Your task to perform on an android device: Show me popular videos on Youtube Image 0: 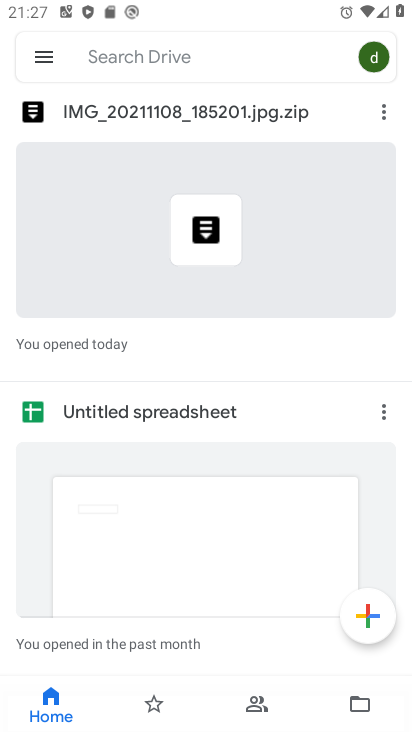
Step 0: press home button
Your task to perform on an android device: Show me popular videos on Youtube Image 1: 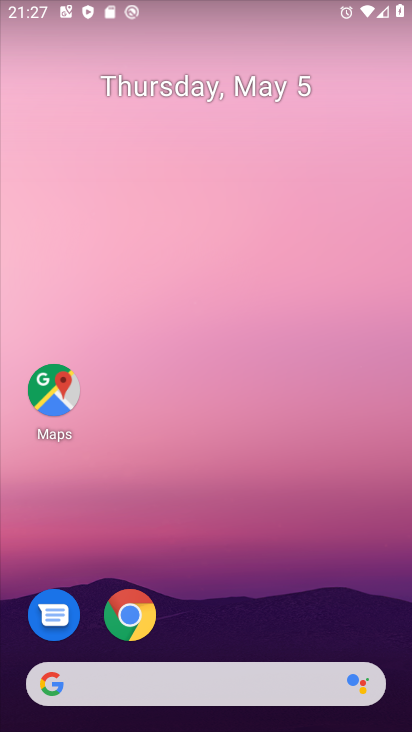
Step 1: drag from (238, 629) to (277, 43)
Your task to perform on an android device: Show me popular videos on Youtube Image 2: 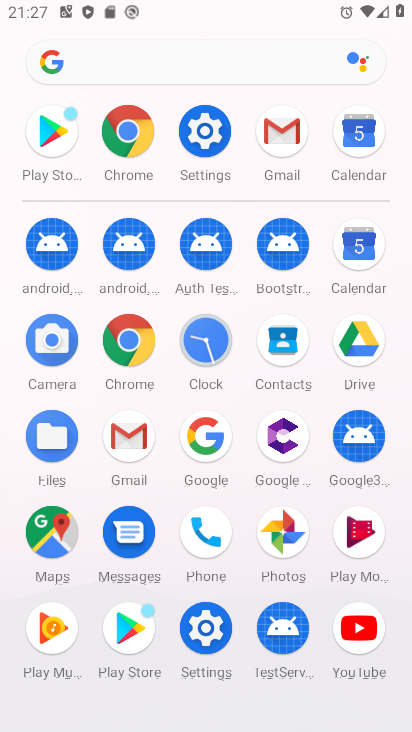
Step 2: click (346, 631)
Your task to perform on an android device: Show me popular videos on Youtube Image 3: 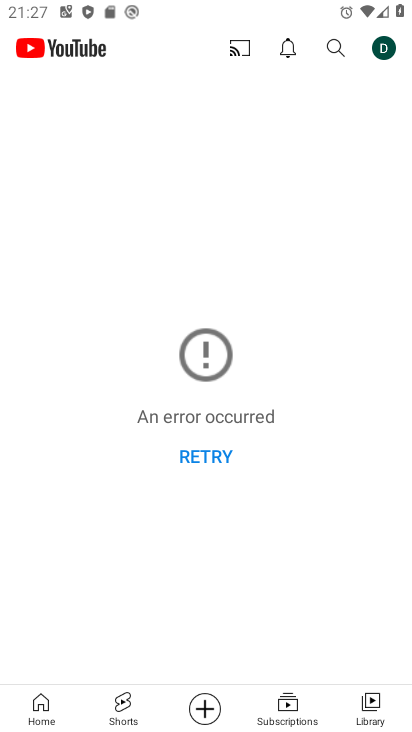
Step 3: click (201, 451)
Your task to perform on an android device: Show me popular videos on Youtube Image 4: 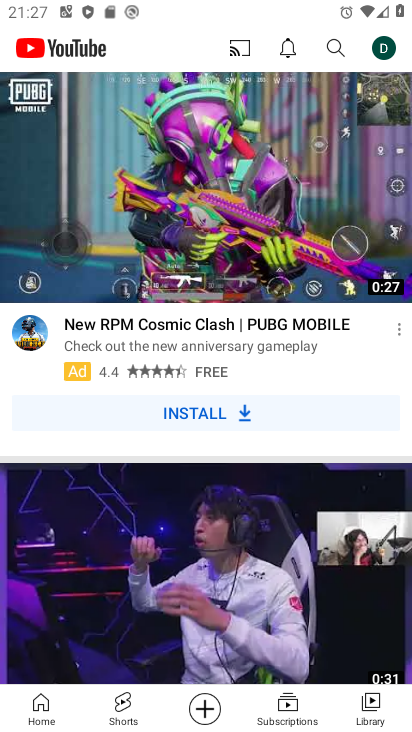
Step 4: drag from (136, 165) to (141, 504)
Your task to perform on an android device: Show me popular videos on Youtube Image 5: 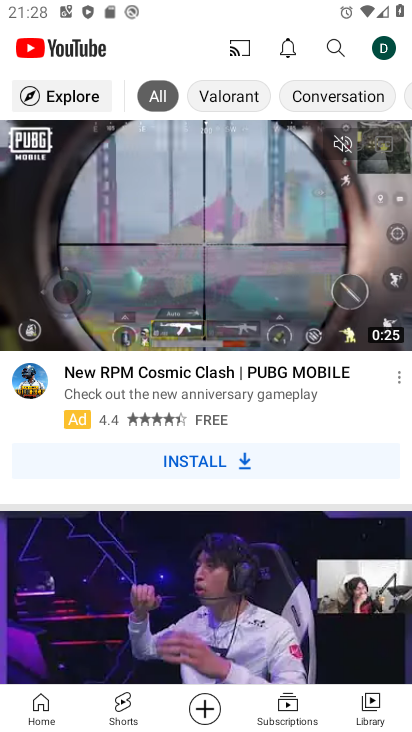
Step 5: click (153, 102)
Your task to perform on an android device: Show me popular videos on Youtube Image 6: 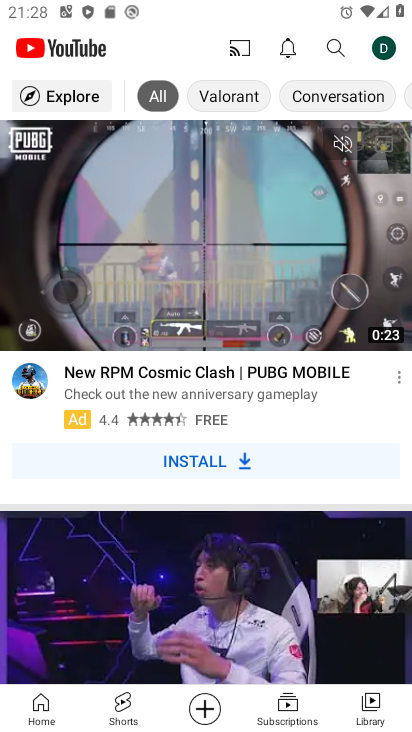
Step 6: click (69, 96)
Your task to perform on an android device: Show me popular videos on Youtube Image 7: 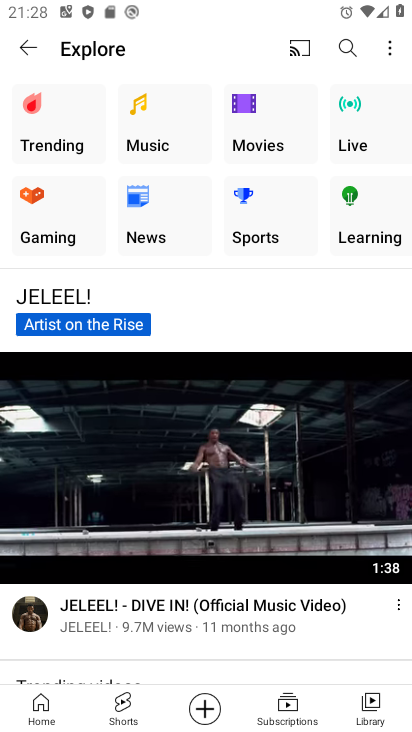
Step 7: drag from (360, 222) to (0, 192)
Your task to perform on an android device: Show me popular videos on Youtube Image 8: 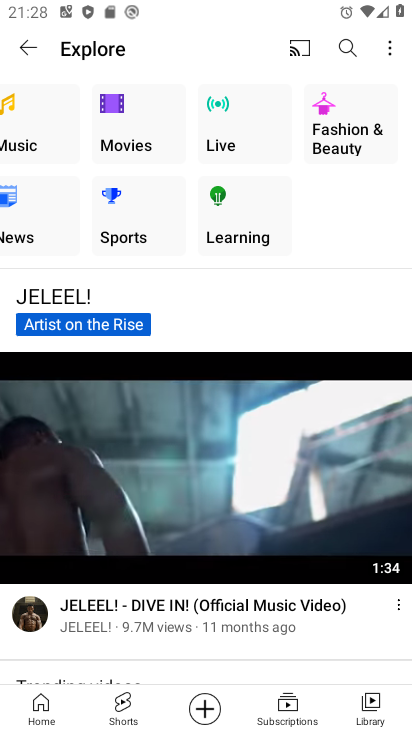
Step 8: drag from (88, 161) to (405, 214)
Your task to perform on an android device: Show me popular videos on Youtube Image 9: 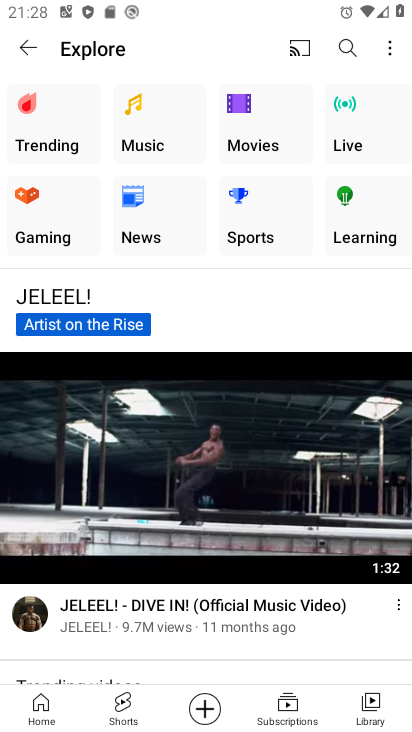
Step 9: click (68, 133)
Your task to perform on an android device: Show me popular videos on Youtube Image 10: 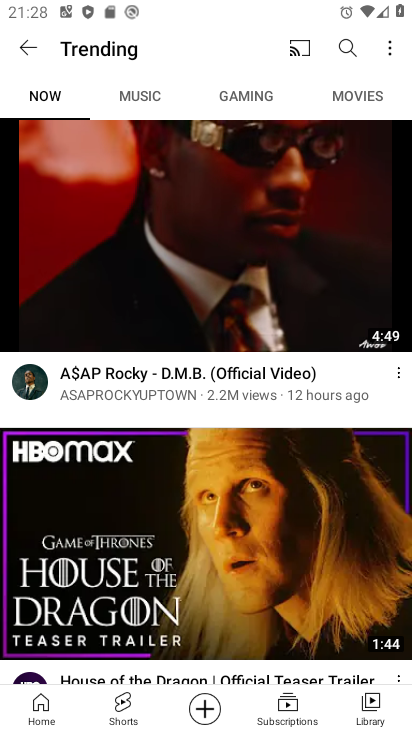
Step 10: task complete